Your task to perform on an android device: Open settings on Google Maps Image 0: 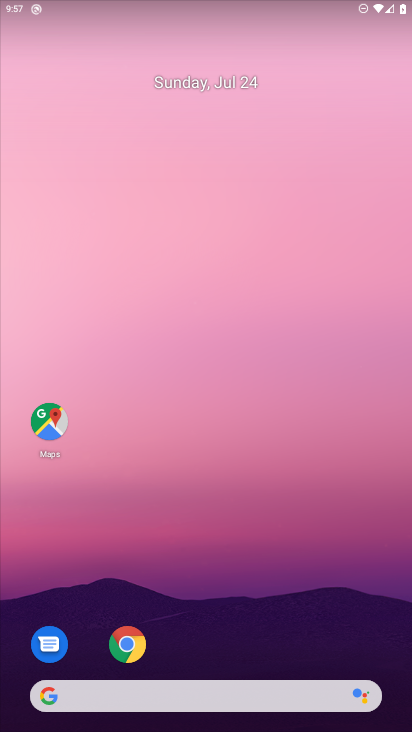
Step 0: press home button
Your task to perform on an android device: Open settings on Google Maps Image 1: 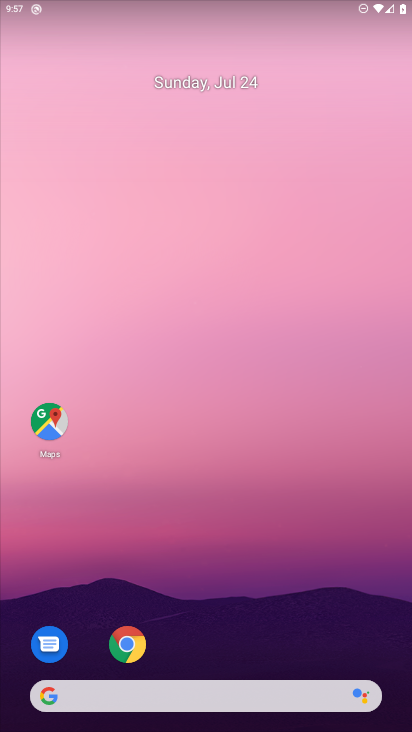
Step 1: click (41, 420)
Your task to perform on an android device: Open settings on Google Maps Image 2: 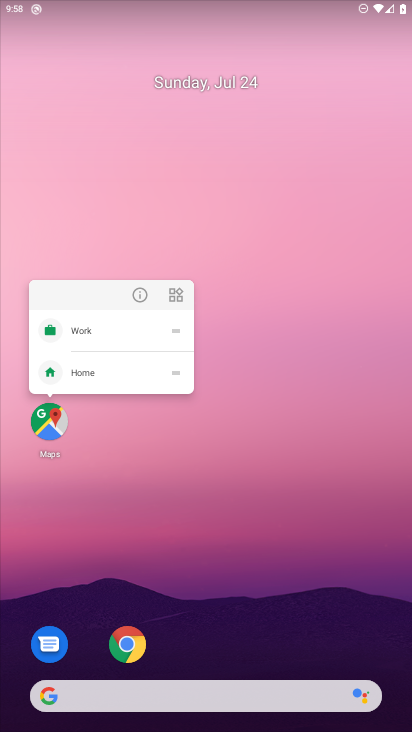
Step 2: click (43, 434)
Your task to perform on an android device: Open settings on Google Maps Image 3: 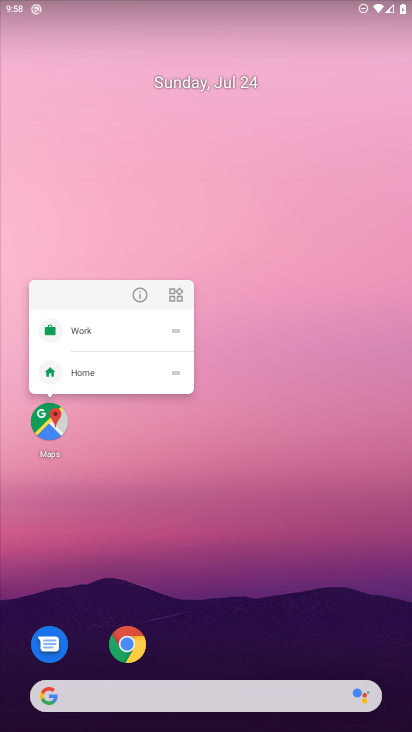
Step 3: click (43, 434)
Your task to perform on an android device: Open settings on Google Maps Image 4: 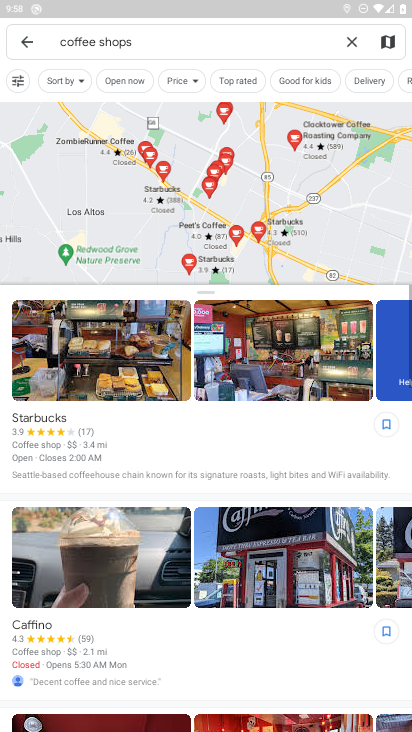
Step 4: click (23, 44)
Your task to perform on an android device: Open settings on Google Maps Image 5: 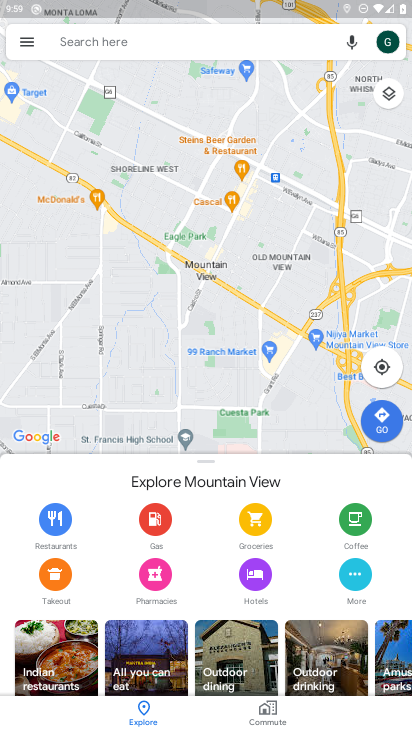
Step 5: click (23, 44)
Your task to perform on an android device: Open settings on Google Maps Image 6: 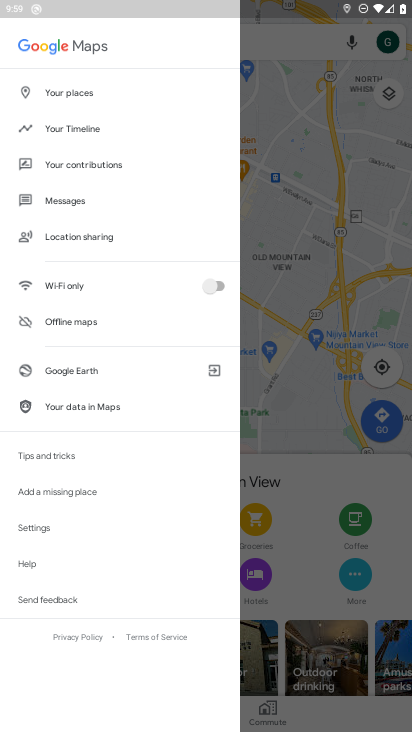
Step 6: click (50, 524)
Your task to perform on an android device: Open settings on Google Maps Image 7: 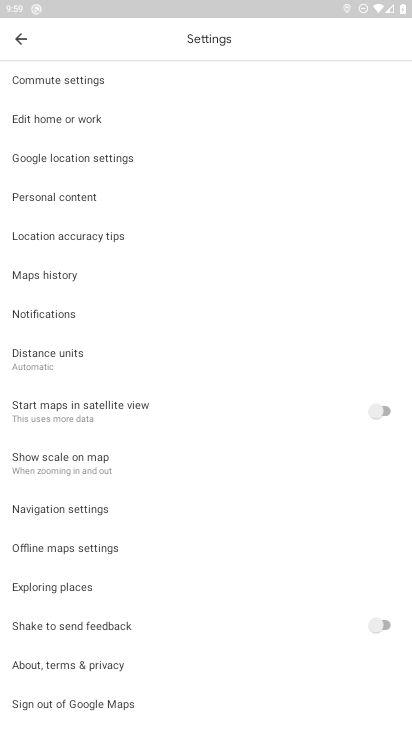
Step 7: task complete